Your task to perform on an android device: turn off improve location accuracy Image 0: 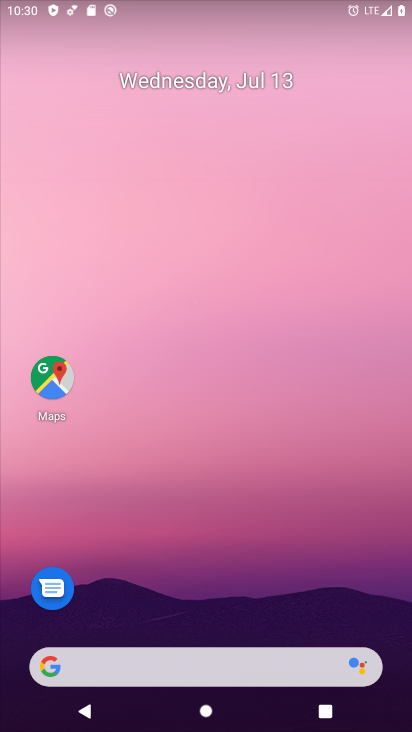
Step 0: drag from (157, 714) to (270, 1)
Your task to perform on an android device: turn off improve location accuracy Image 1: 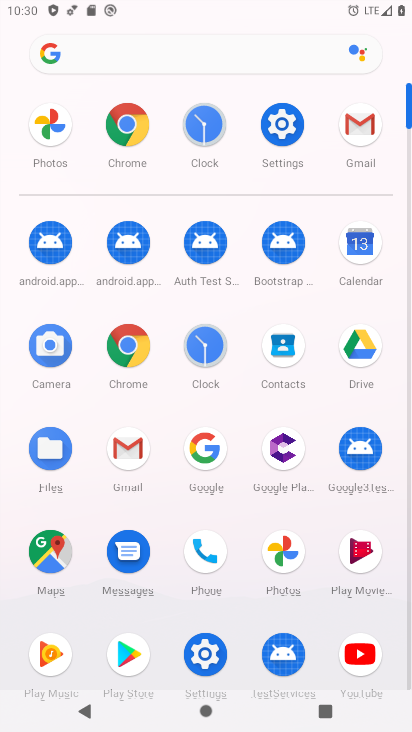
Step 1: click (291, 110)
Your task to perform on an android device: turn off improve location accuracy Image 2: 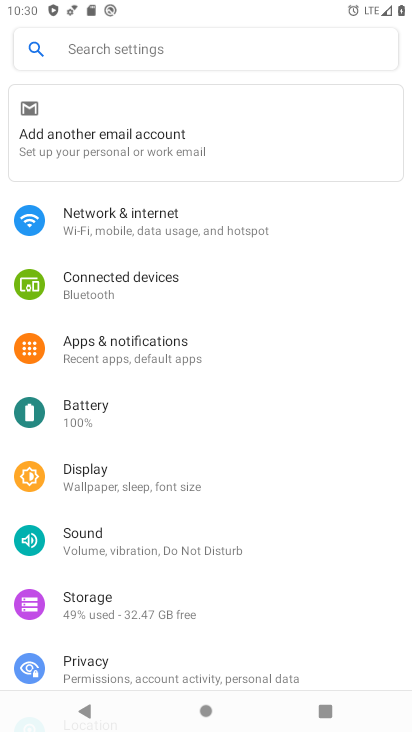
Step 2: drag from (205, 651) to (304, 11)
Your task to perform on an android device: turn off improve location accuracy Image 3: 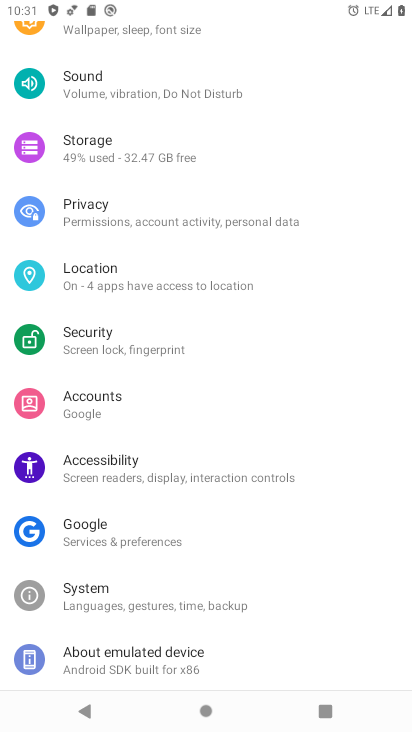
Step 3: click (202, 285)
Your task to perform on an android device: turn off improve location accuracy Image 4: 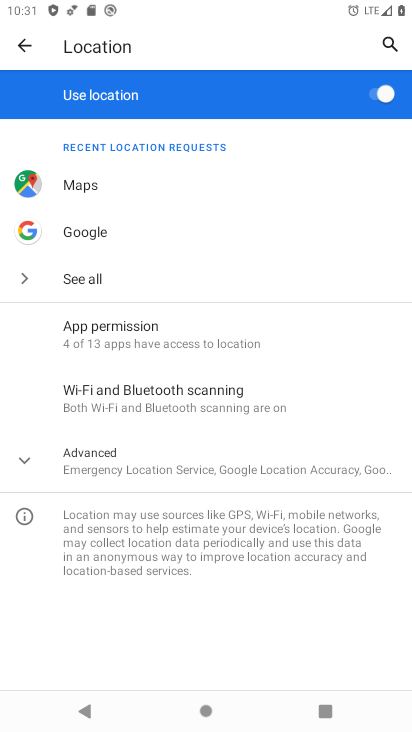
Step 4: click (127, 472)
Your task to perform on an android device: turn off improve location accuracy Image 5: 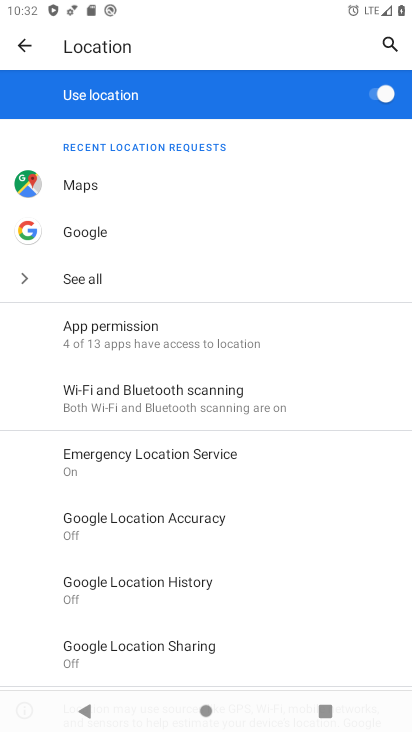
Step 5: click (221, 524)
Your task to perform on an android device: turn off improve location accuracy Image 6: 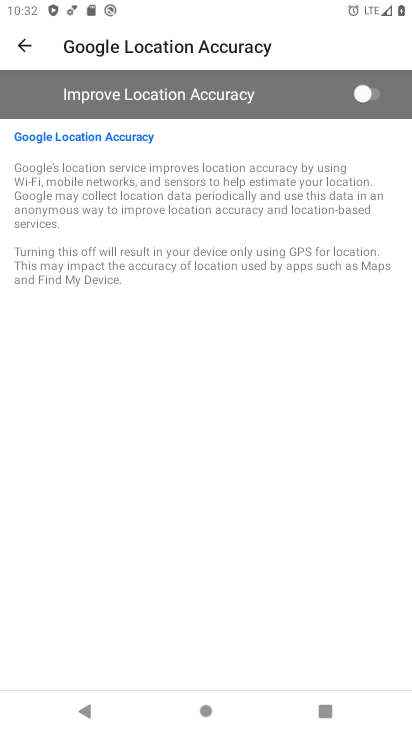
Step 6: task complete